Your task to perform on an android device: Go to notification settings Image 0: 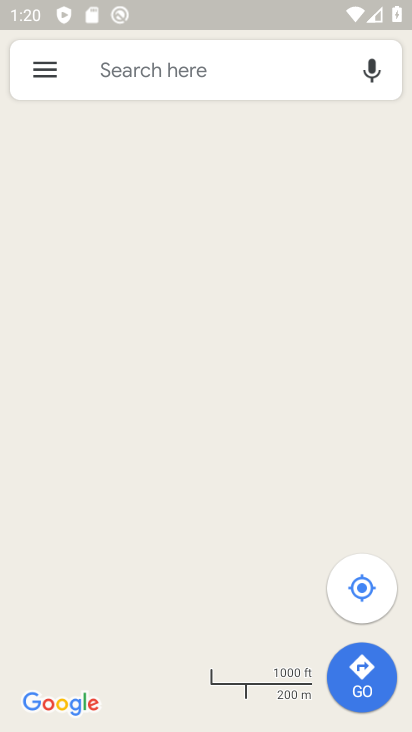
Step 0: press back button
Your task to perform on an android device: Go to notification settings Image 1: 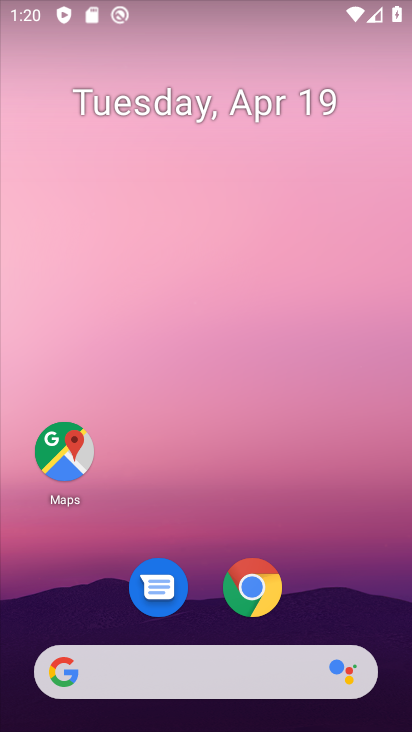
Step 1: drag from (186, 601) to (244, 147)
Your task to perform on an android device: Go to notification settings Image 2: 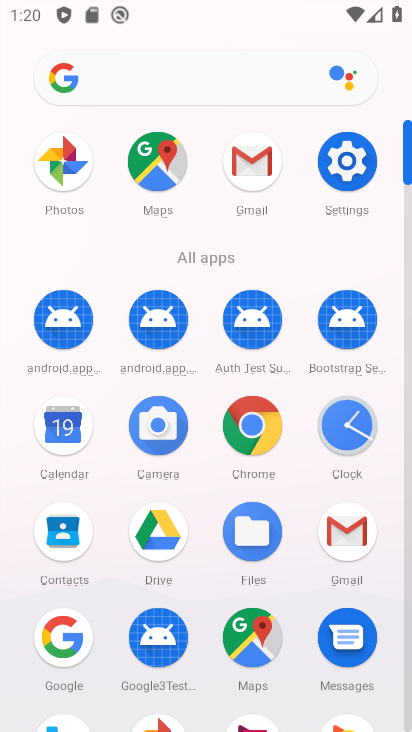
Step 2: click (354, 169)
Your task to perform on an android device: Go to notification settings Image 3: 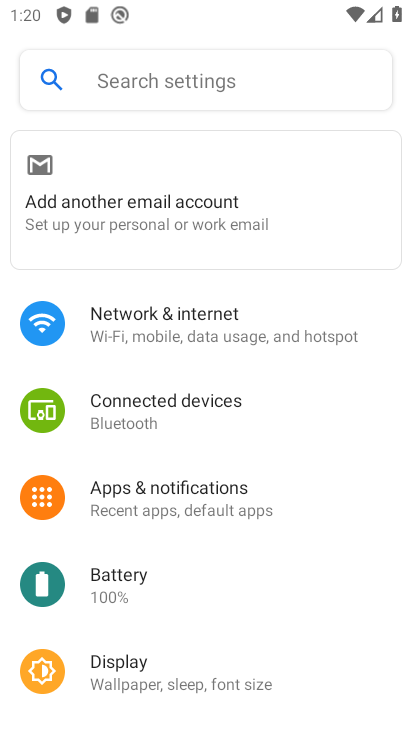
Step 3: click (254, 501)
Your task to perform on an android device: Go to notification settings Image 4: 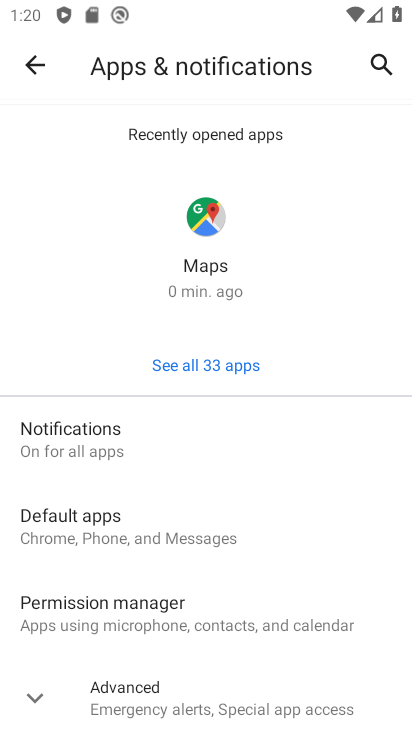
Step 4: click (205, 444)
Your task to perform on an android device: Go to notification settings Image 5: 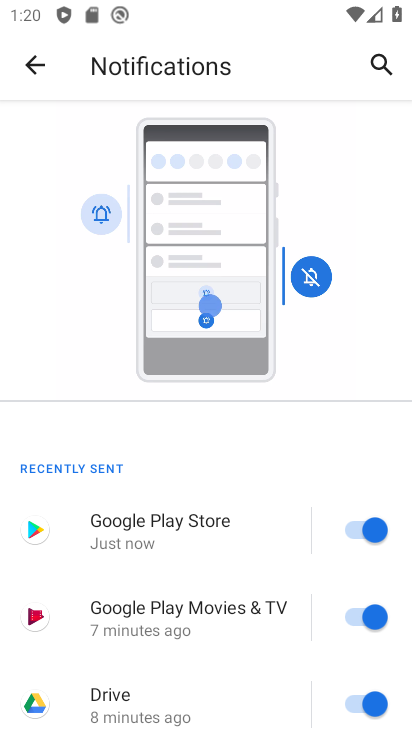
Step 5: task complete